Your task to perform on an android device: Search for pizza restaurants on Maps Image 0: 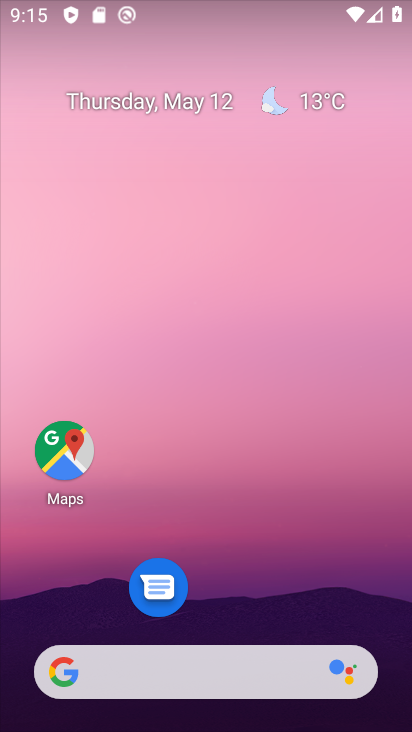
Step 0: drag from (200, 632) to (128, 28)
Your task to perform on an android device: Search for pizza restaurants on Maps Image 1: 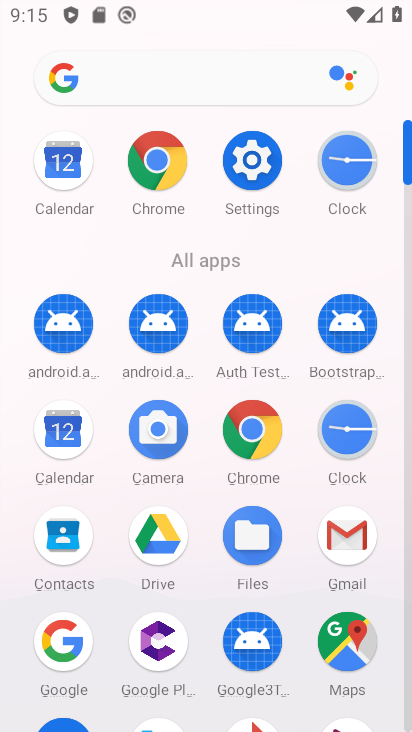
Step 1: click (367, 665)
Your task to perform on an android device: Search for pizza restaurants on Maps Image 2: 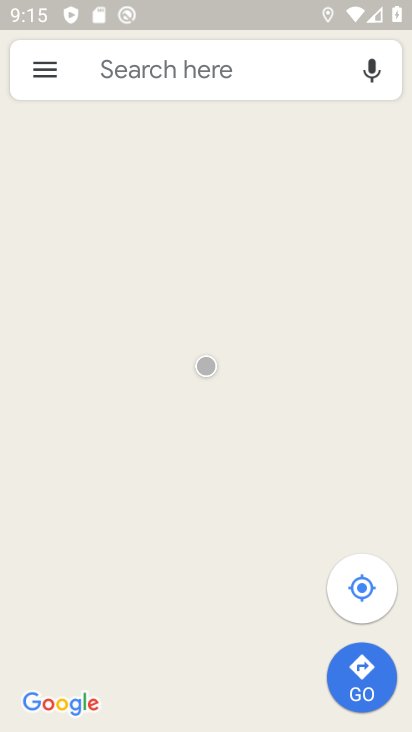
Step 2: click (197, 55)
Your task to perform on an android device: Search for pizza restaurants on Maps Image 3: 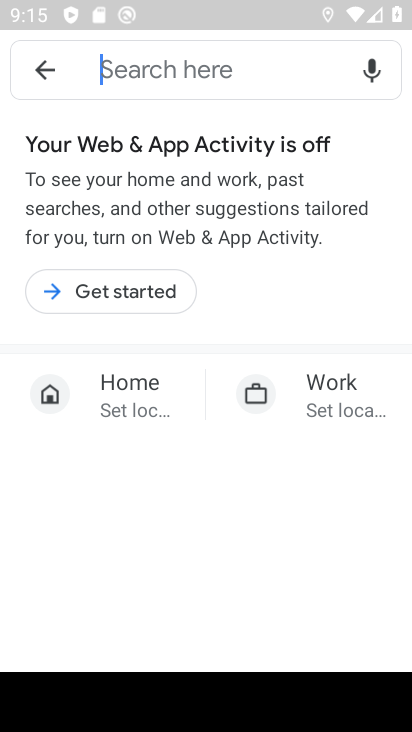
Step 3: click (57, 296)
Your task to perform on an android device: Search for pizza restaurants on Maps Image 4: 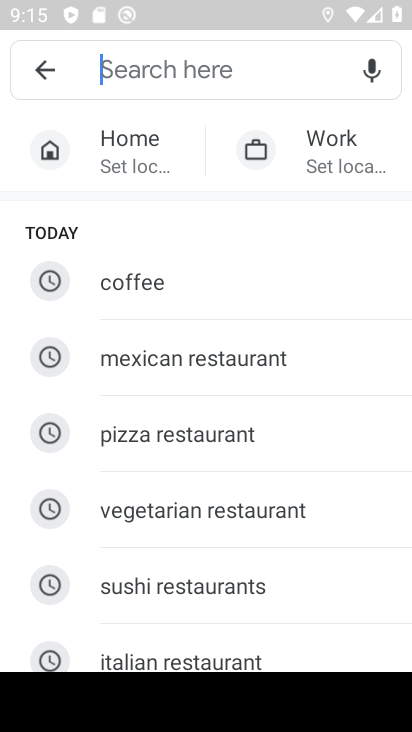
Step 4: click (196, 443)
Your task to perform on an android device: Search for pizza restaurants on Maps Image 5: 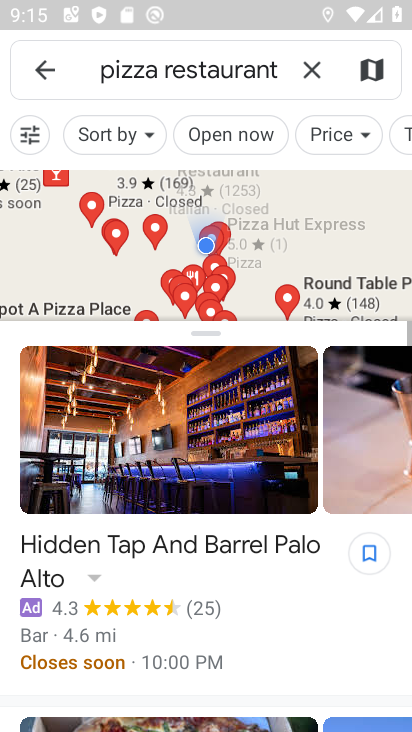
Step 5: task complete